Your task to perform on an android device: check the backup settings in the google photos Image 0: 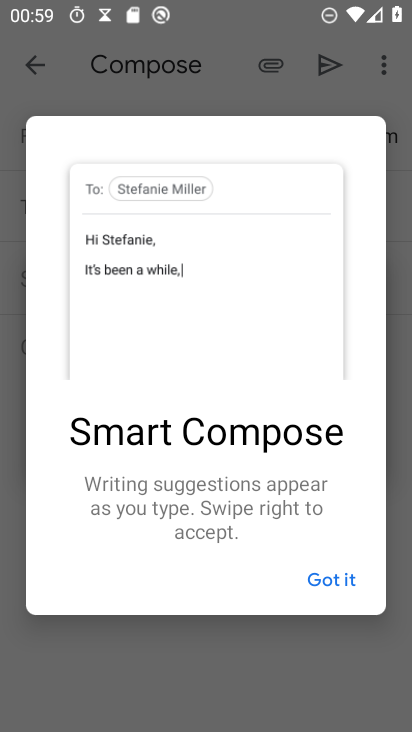
Step 0: press home button
Your task to perform on an android device: check the backup settings in the google photos Image 1: 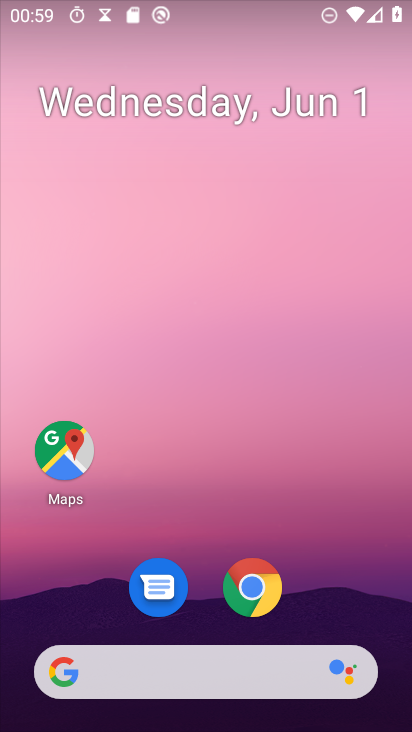
Step 1: drag from (331, 596) to (334, 17)
Your task to perform on an android device: check the backup settings in the google photos Image 2: 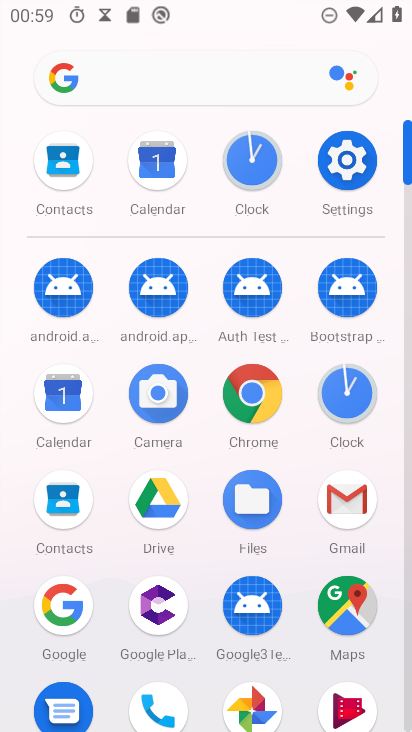
Step 2: click (245, 696)
Your task to perform on an android device: check the backup settings in the google photos Image 3: 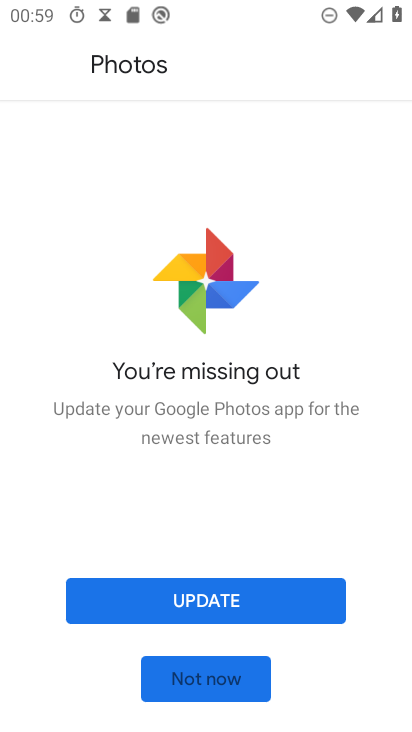
Step 3: click (248, 596)
Your task to perform on an android device: check the backup settings in the google photos Image 4: 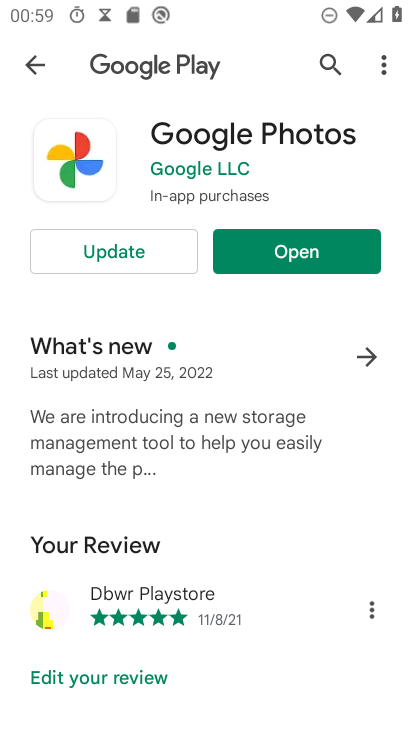
Step 4: click (49, 255)
Your task to perform on an android device: check the backup settings in the google photos Image 5: 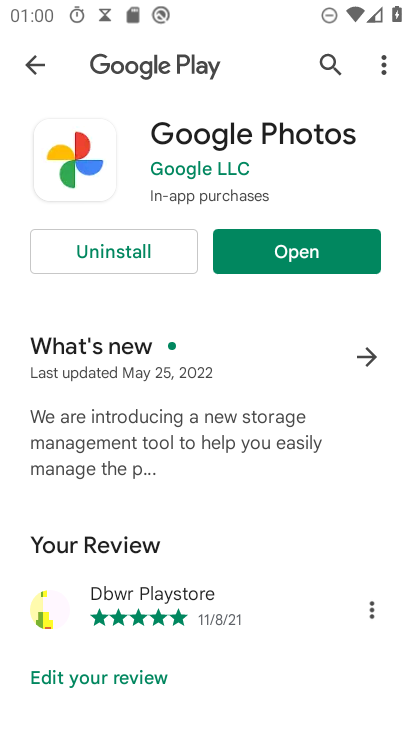
Step 5: click (257, 261)
Your task to perform on an android device: check the backup settings in the google photos Image 6: 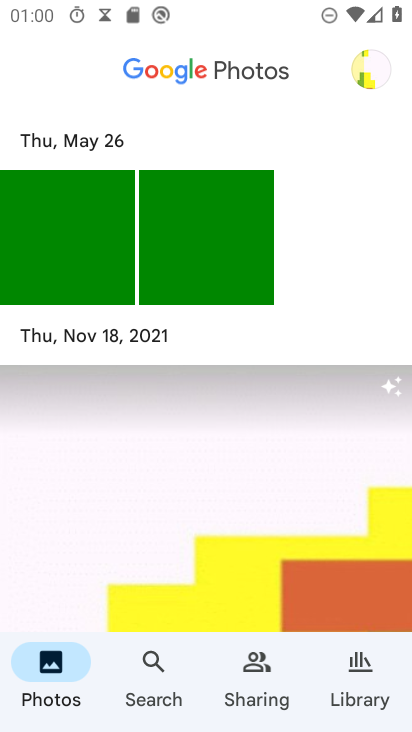
Step 6: click (374, 75)
Your task to perform on an android device: check the backup settings in the google photos Image 7: 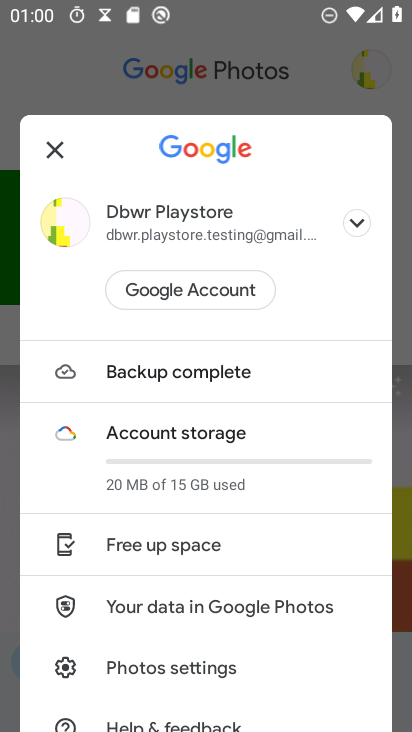
Step 7: drag from (281, 625) to (262, 185)
Your task to perform on an android device: check the backup settings in the google photos Image 8: 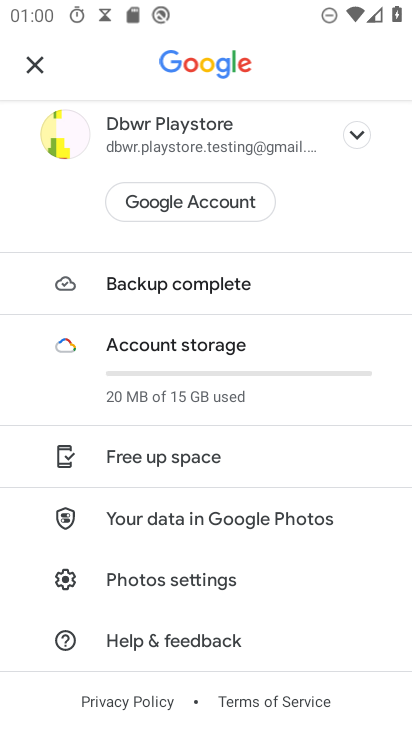
Step 8: click (170, 586)
Your task to perform on an android device: check the backup settings in the google photos Image 9: 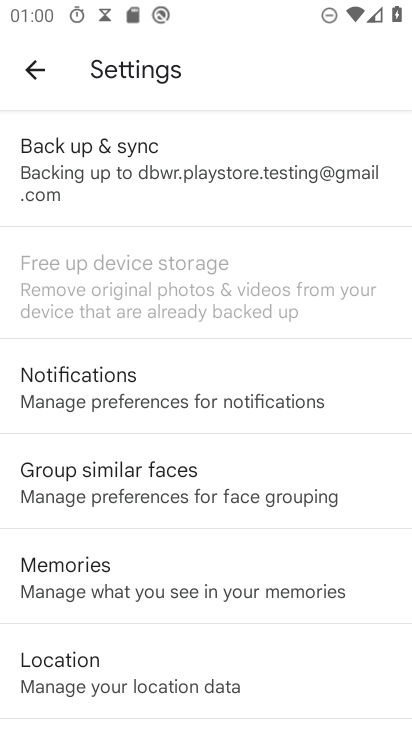
Step 9: click (191, 192)
Your task to perform on an android device: check the backup settings in the google photos Image 10: 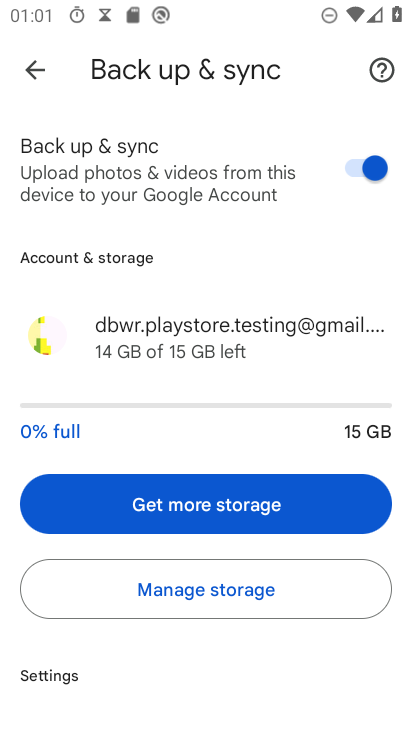
Step 10: task complete